Your task to perform on an android device: Search for floor lamps on article.com Image 0: 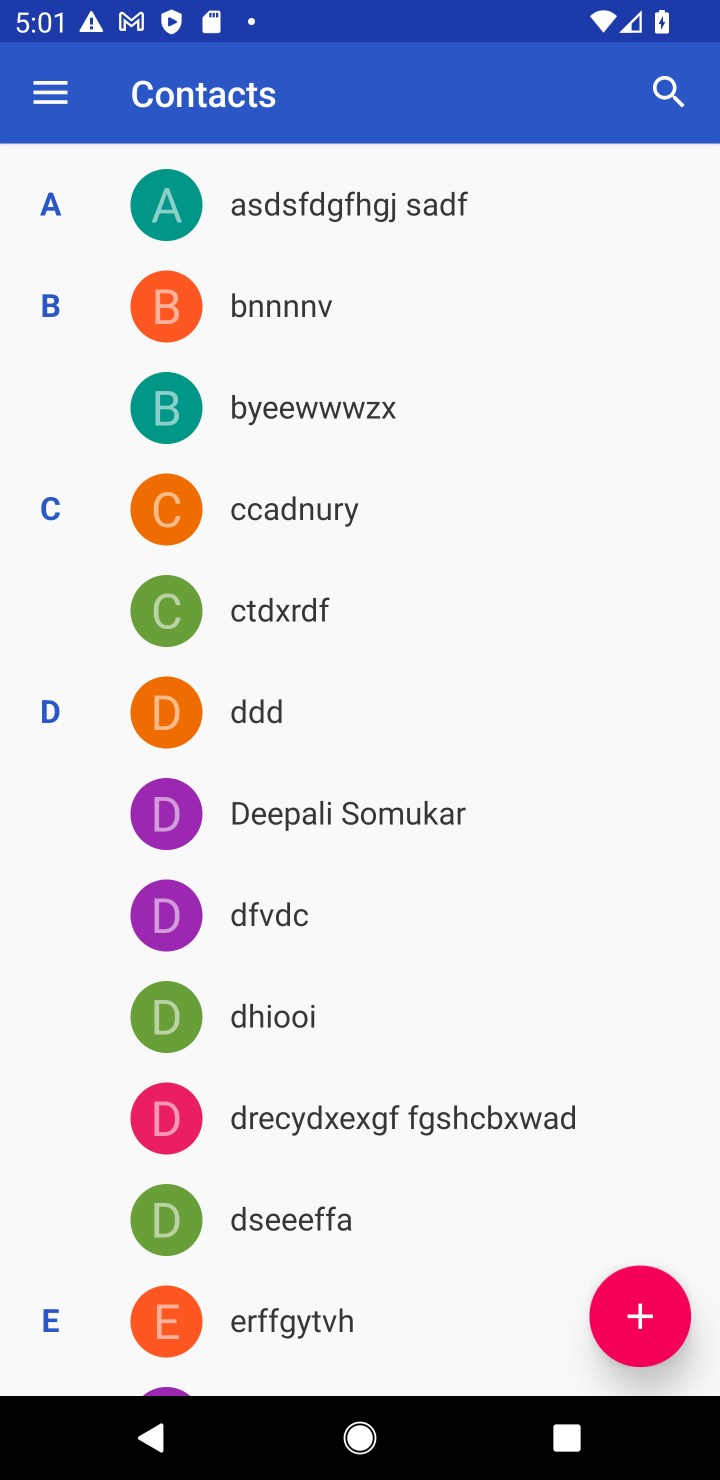
Step 0: press home button
Your task to perform on an android device: Search for floor lamps on article.com Image 1: 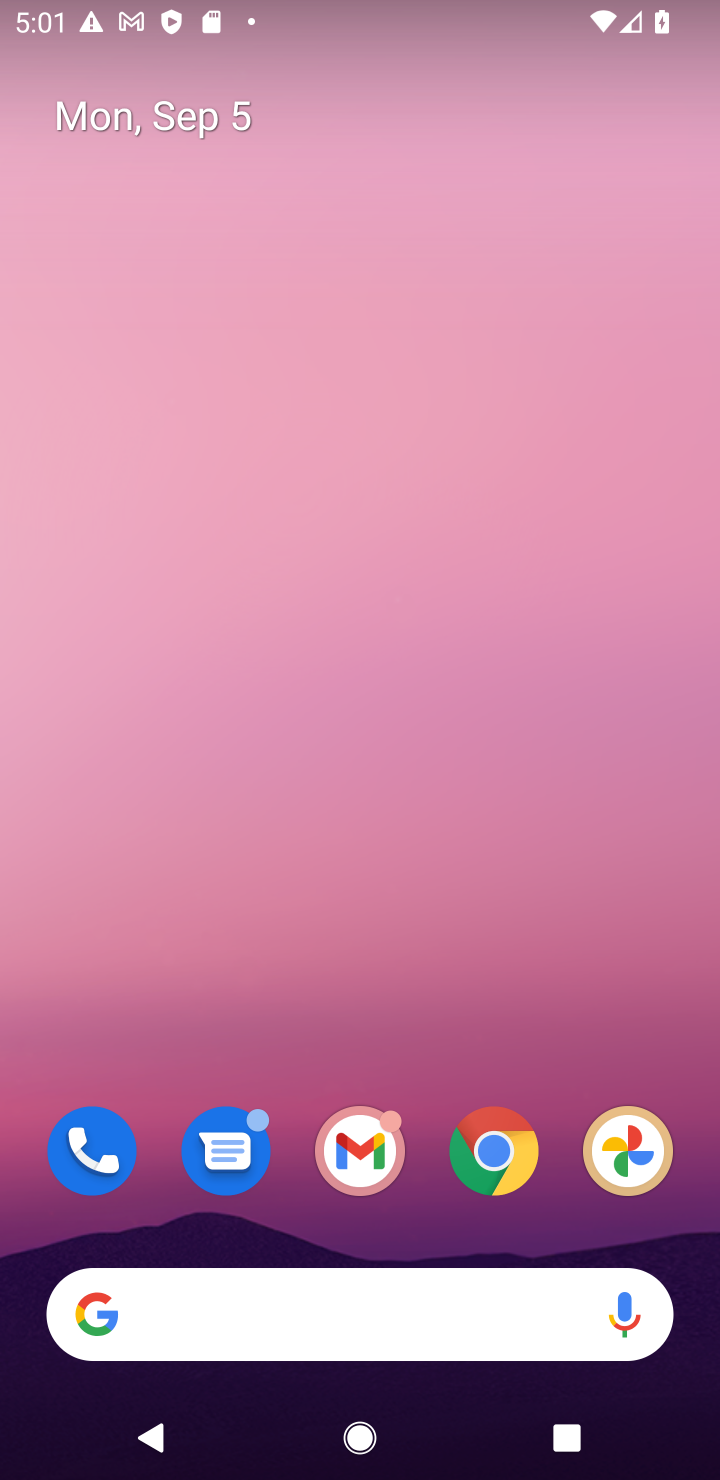
Step 1: click (499, 1139)
Your task to perform on an android device: Search for floor lamps on article.com Image 2: 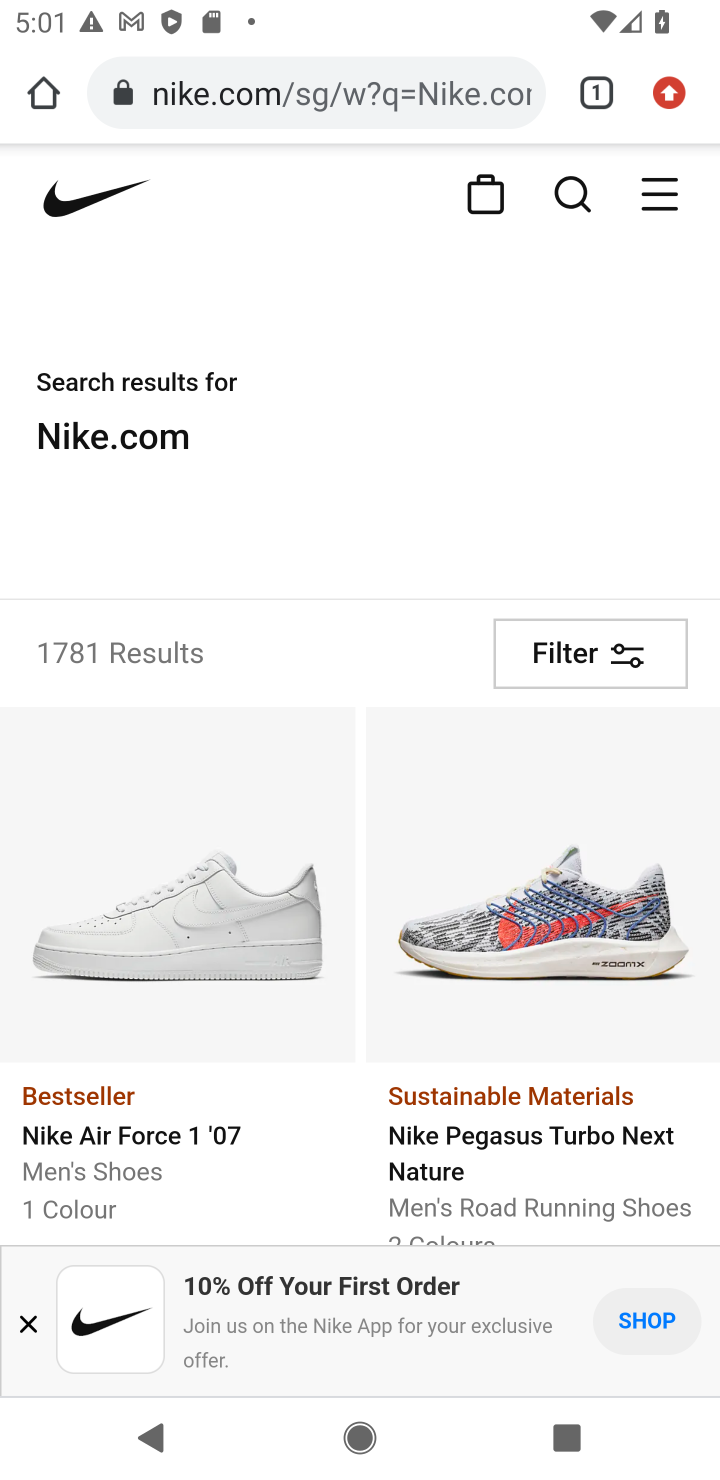
Step 2: click (425, 108)
Your task to perform on an android device: Search for floor lamps on article.com Image 3: 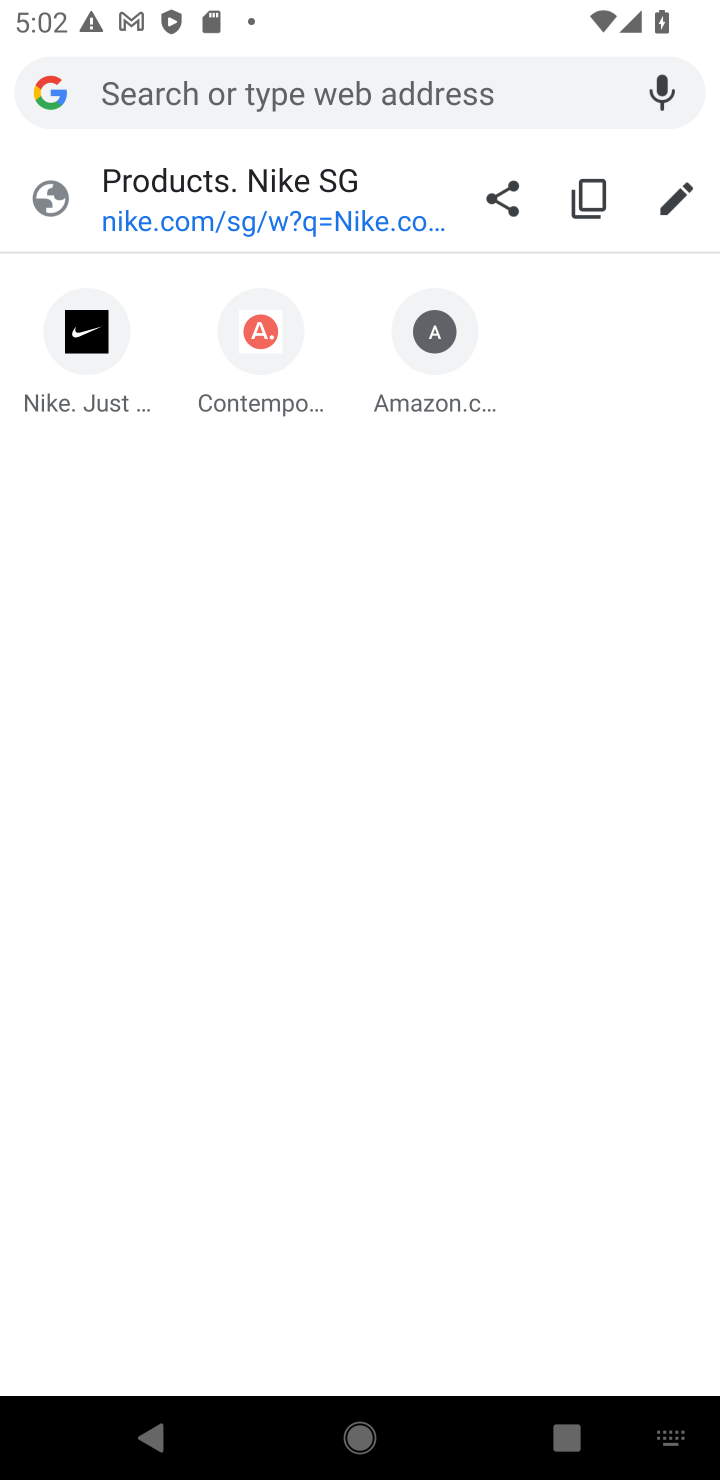
Step 3: type "article.com"
Your task to perform on an android device: Search for floor lamps on article.com Image 4: 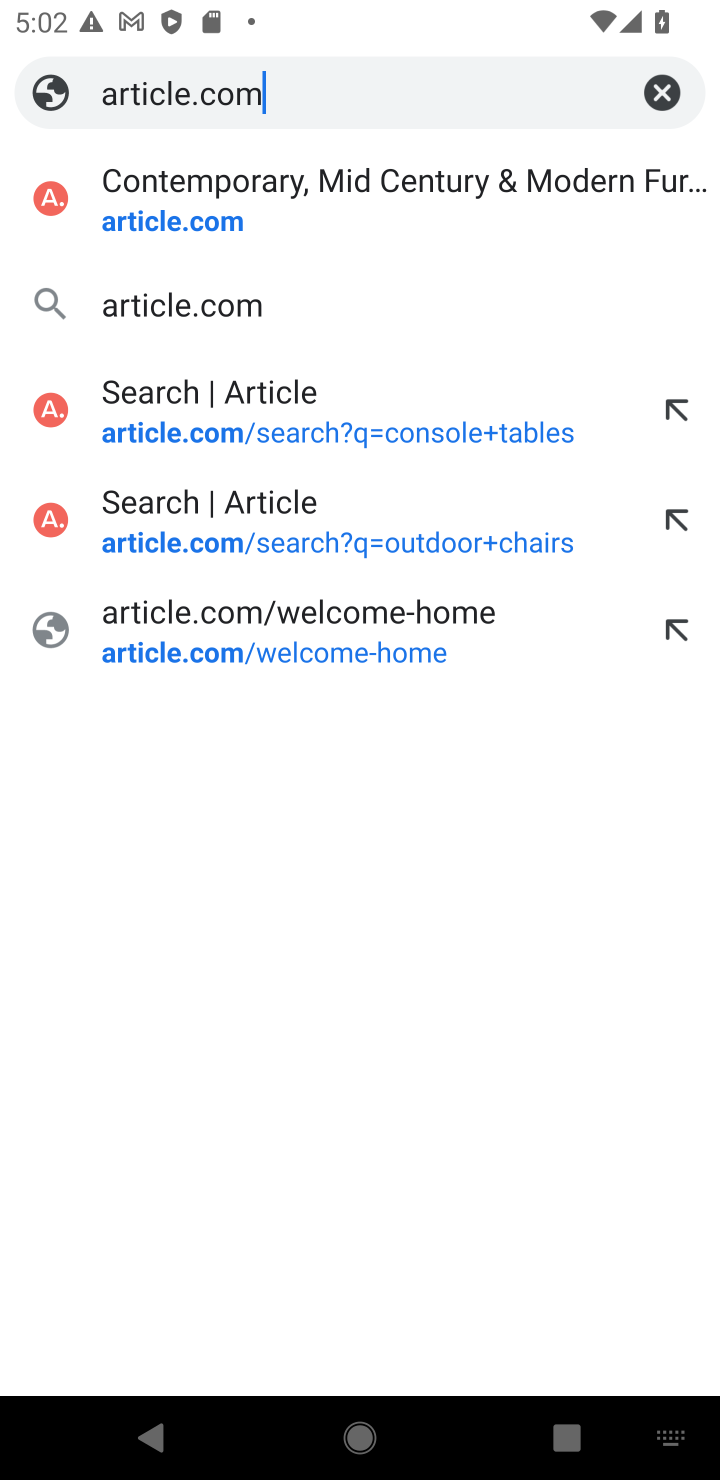
Step 4: click (464, 186)
Your task to perform on an android device: Search for floor lamps on article.com Image 5: 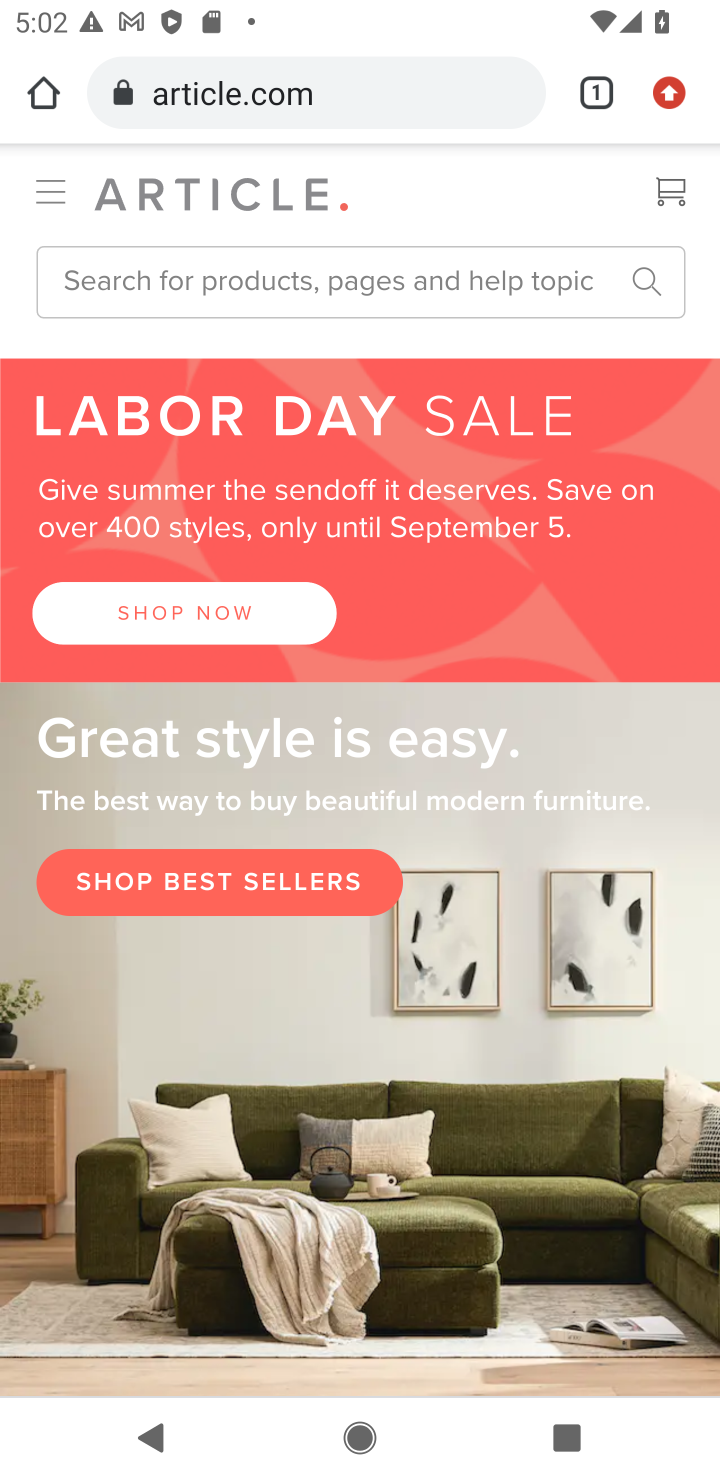
Step 5: click (428, 291)
Your task to perform on an android device: Search for floor lamps on article.com Image 6: 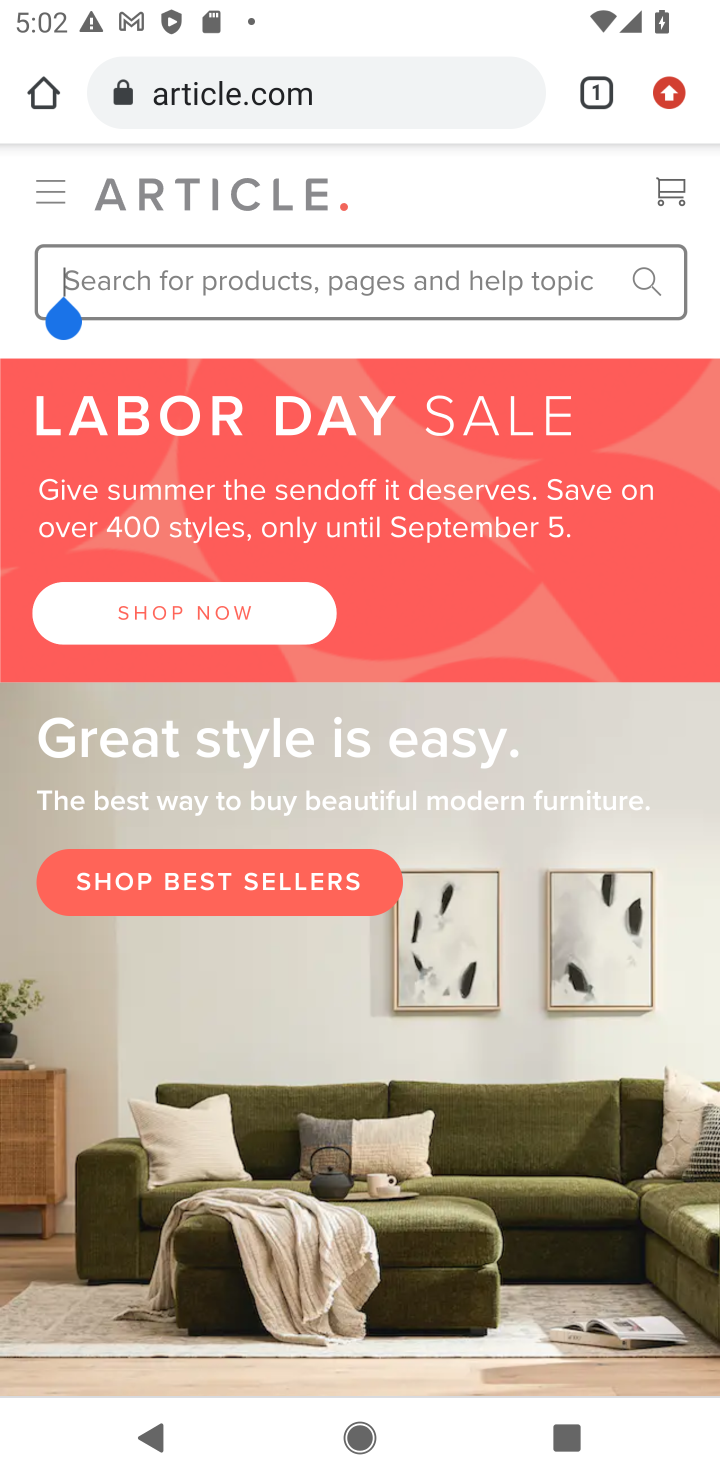
Step 6: type "floor lamps"
Your task to perform on an android device: Search for floor lamps on article.com Image 7: 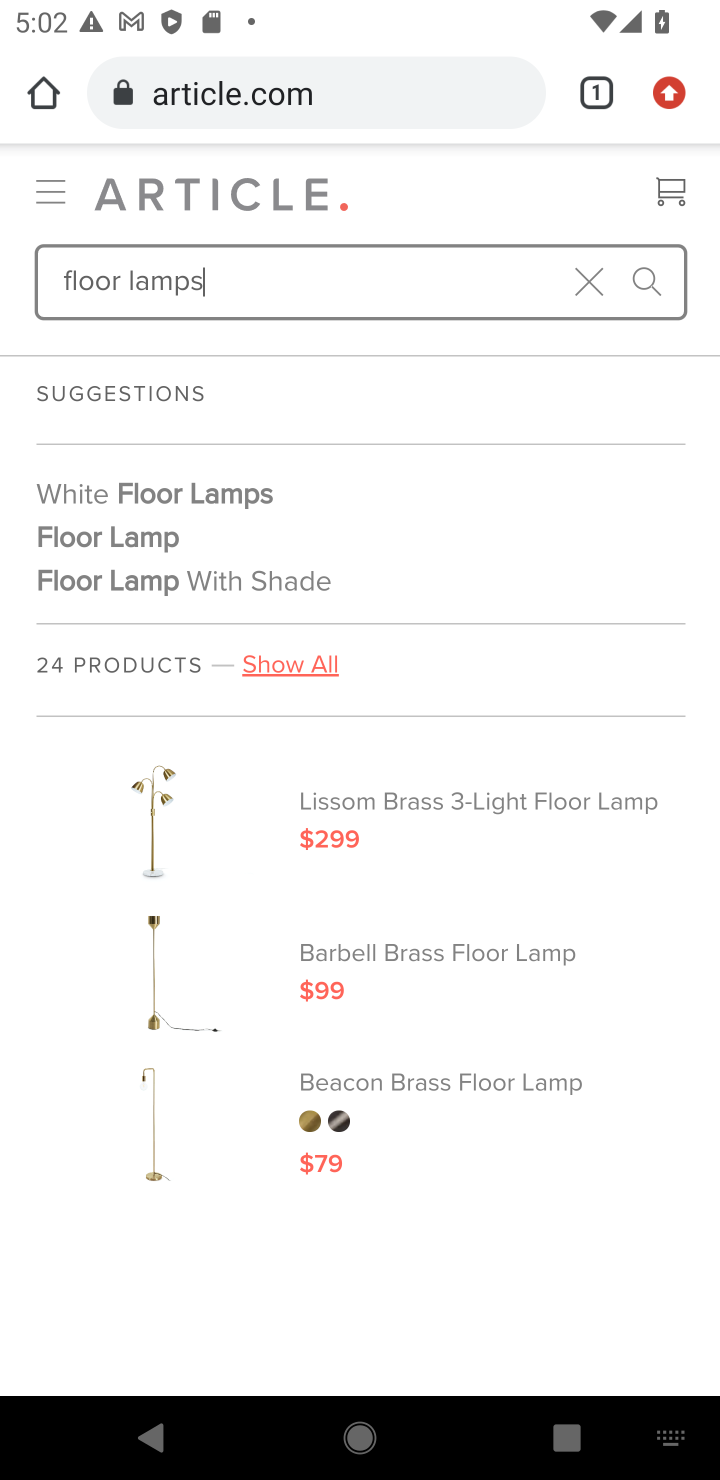
Step 7: click (652, 279)
Your task to perform on an android device: Search for floor lamps on article.com Image 8: 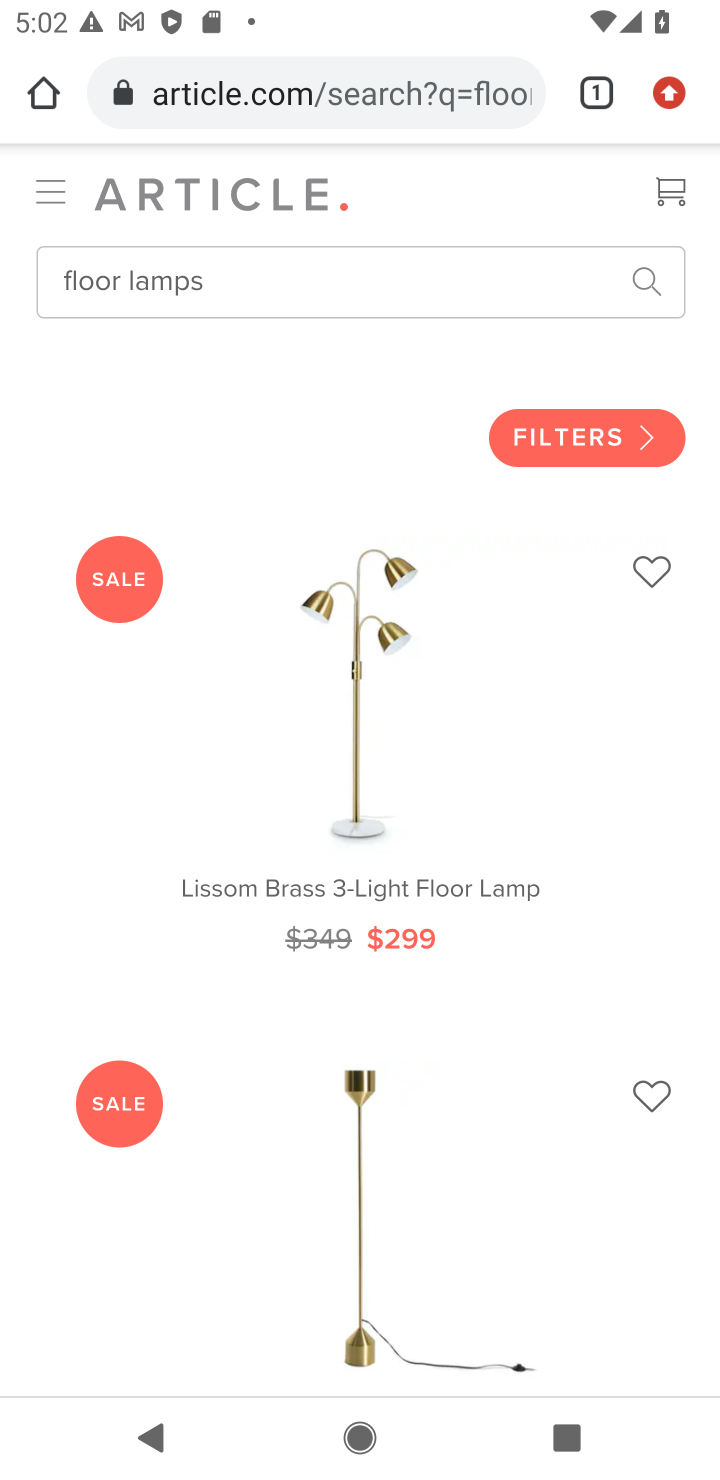
Step 8: task complete